Your task to perform on an android device: Go to Google Image 0: 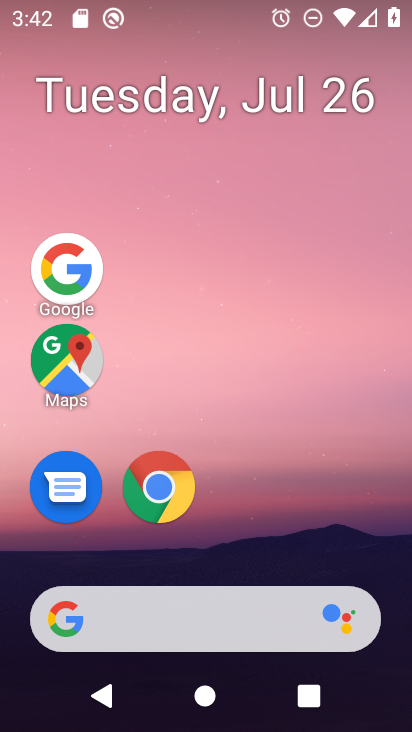
Step 0: press home button
Your task to perform on an android device: Go to Google Image 1: 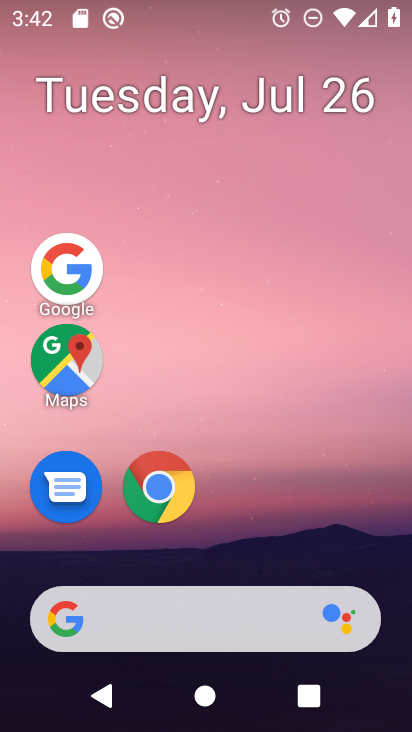
Step 1: drag from (197, 674) to (213, 139)
Your task to perform on an android device: Go to Google Image 2: 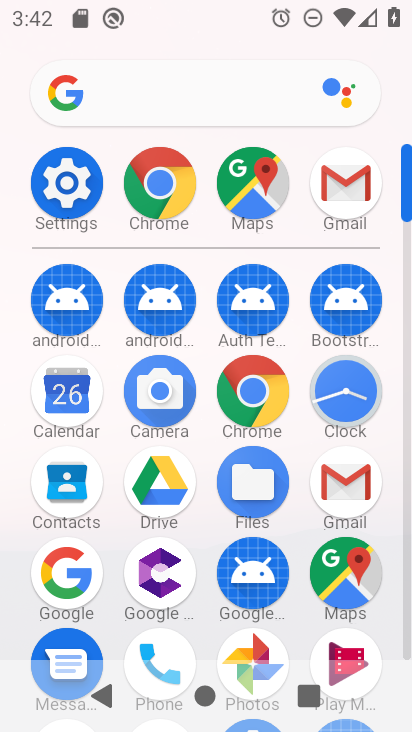
Step 2: drag from (228, 446) to (211, 169)
Your task to perform on an android device: Go to Google Image 3: 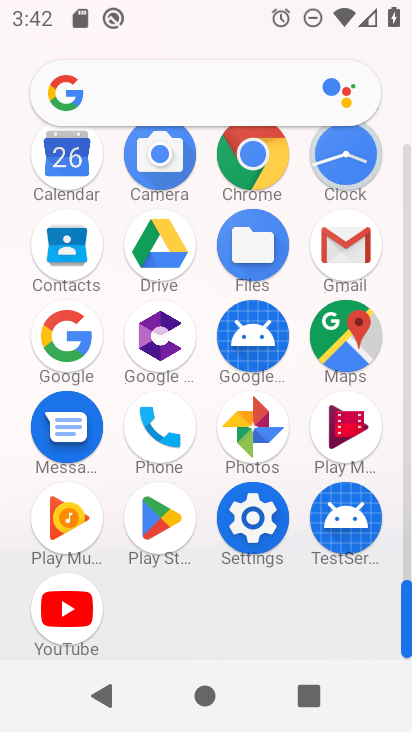
Step 3: click (70, 362)
Your task to perform on an android device: Go to Google Image 4: 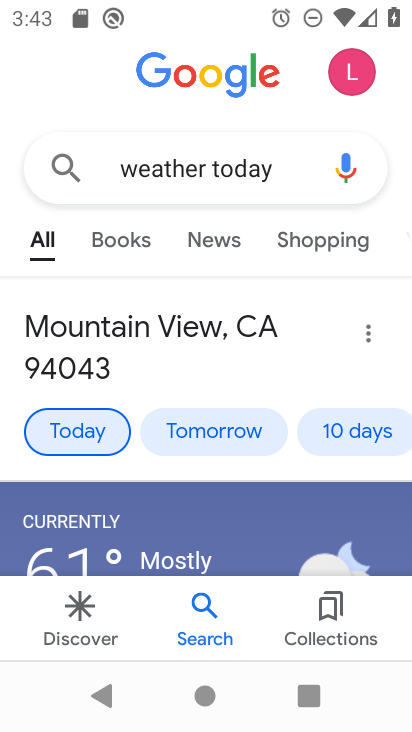
Step 4: task complete